Your task to perform on an android device: Open sound settings Image 0: 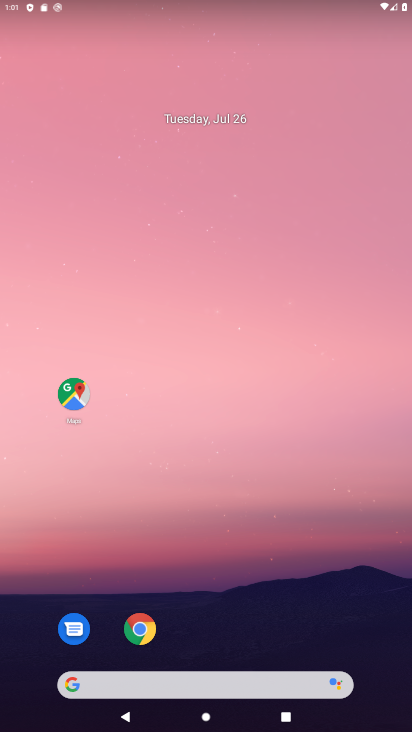
Step 0: press home button
Your task to perform on an android device: Open sound settings Image 1: 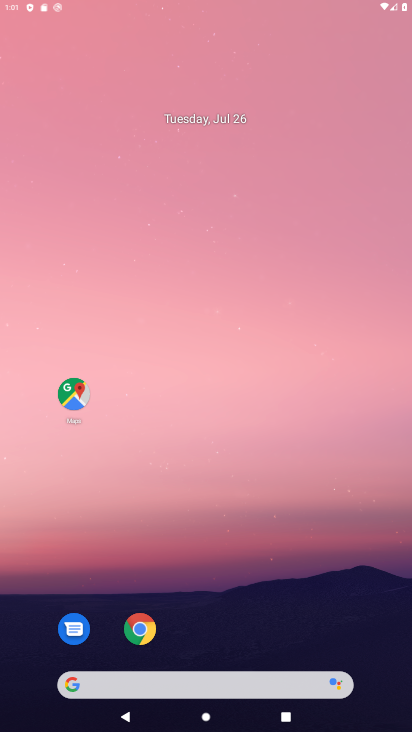
Step 1: click (140, 629)
Your task to perform on an android device: Open sound settings Image 2: 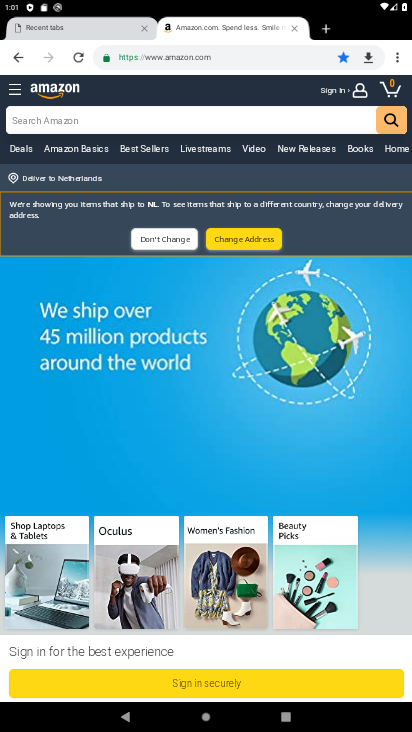
Step 2: press home button
Your task to perform on an android device: Open sound settings Image 3: 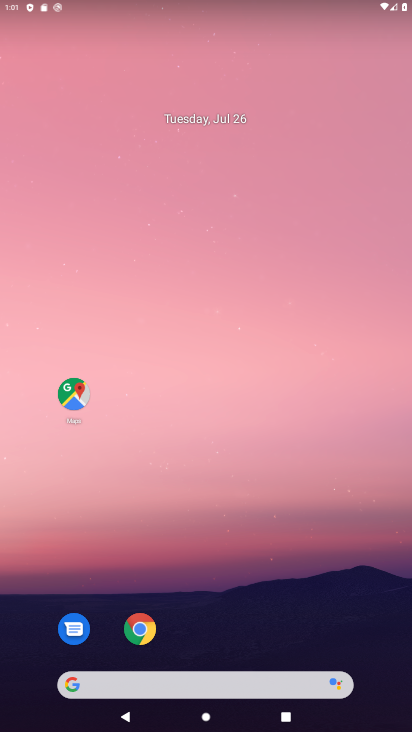
Step 3: drag from (392, 705) to (318, 133)
Your task to perform on an android device: Open sound settings Image 4: 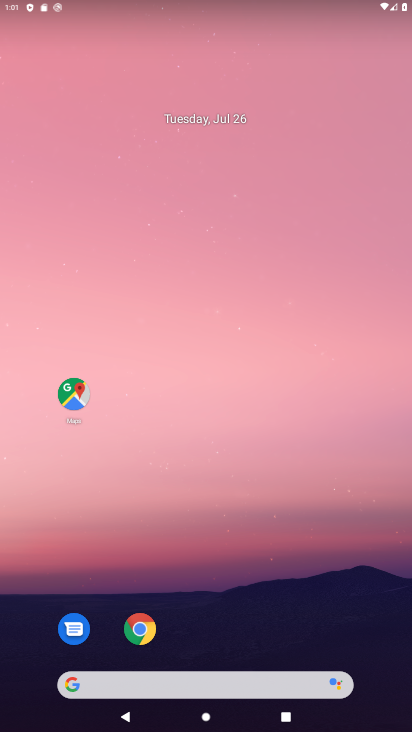
Step 4: drag from (361, 520) to (327, 165)
Your task to perform on an android device: Open sound settings Image 5: 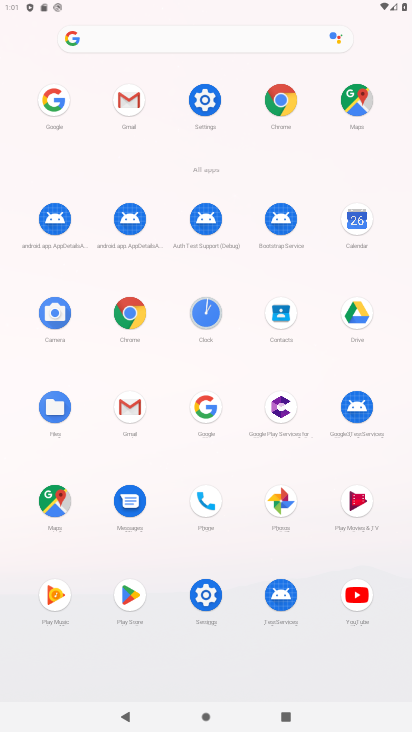
Step 5: click (195, 98)
Your task to perform on an android device: Open sound settings Image 6: 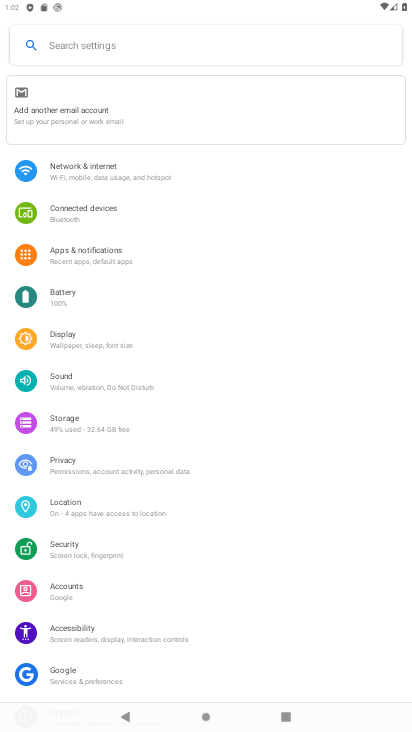
Step 6: click (59, 380)
Your task to perform on an android device: Open sound settings Image 7: 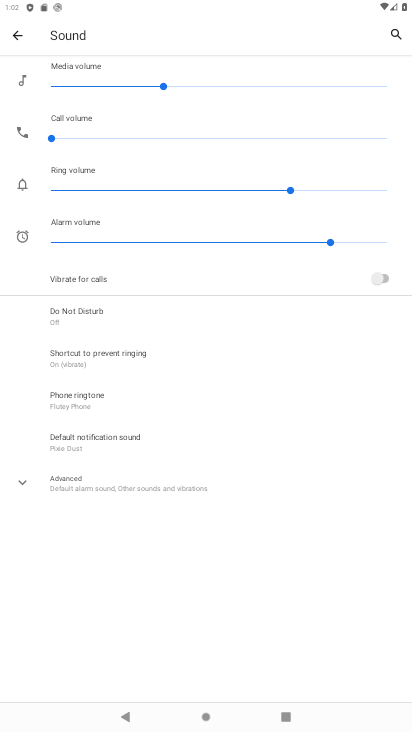
Step 7: task complete